Your task to perform on an android device: open the mobile data screen to see how much data has been used Image 0: 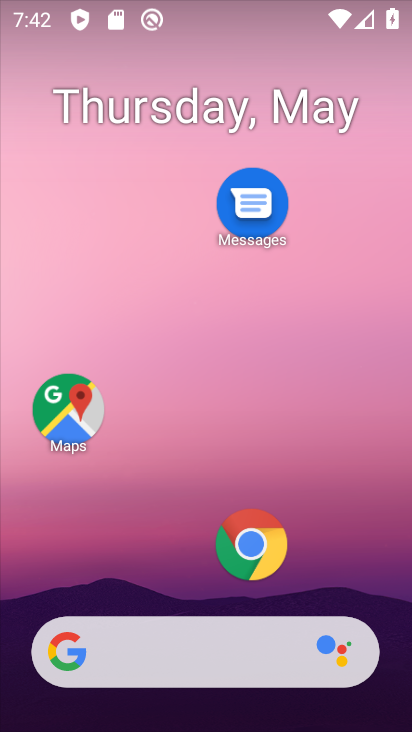
Step 0: drag from (82, 588) to (289, 56)
Your task to perform on an android device: open the mobile data screen to see how much data has been used Image 1: 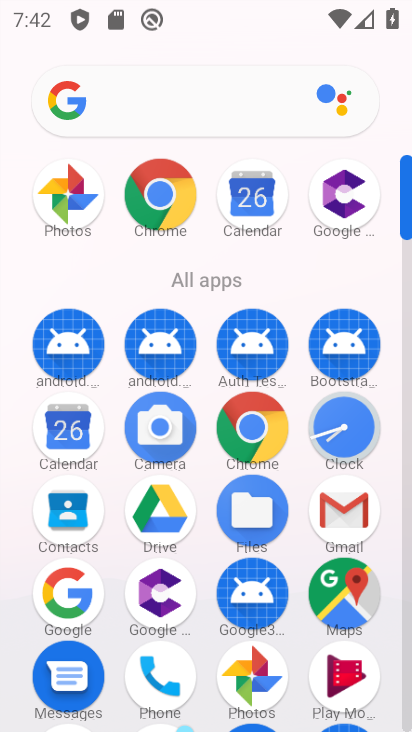
Step 1: drag from (119, 531) to (168, 169)
Your task to perform on an android device: open the mobile data screen to see how much data has been used Image 2: 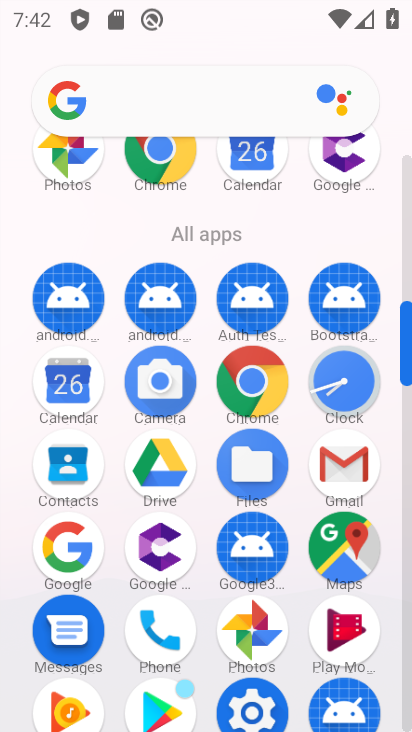
Step 2: click (258, 716)
Your task to perform on an android device: open the mobile data screen to see how much data has been used Image 3: 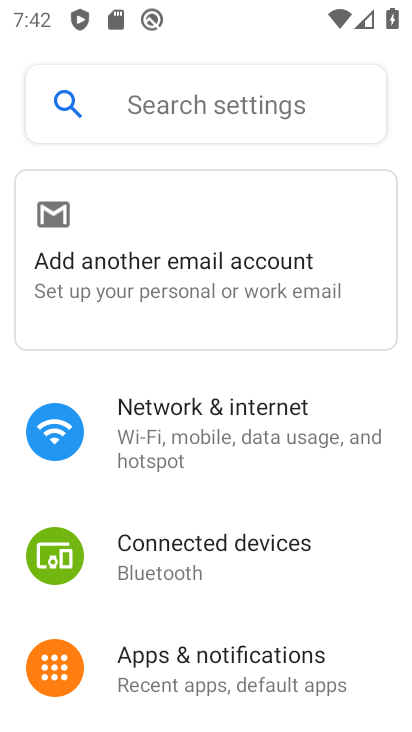
Step 3: drag from (229, 613) to (282, 247)
Your task to perform on an android device: open the mobile data screen to see how much data has been used Image 4: 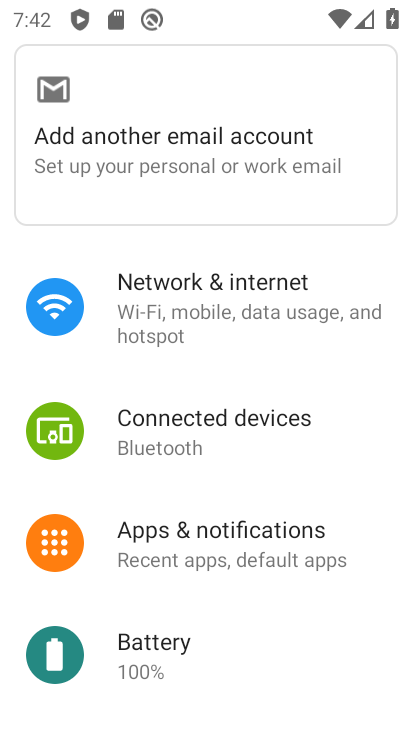
Step 4: click (205, 293)
Your task to perform on an android device: open the mobile data screen to see how much data has been used Image 5: 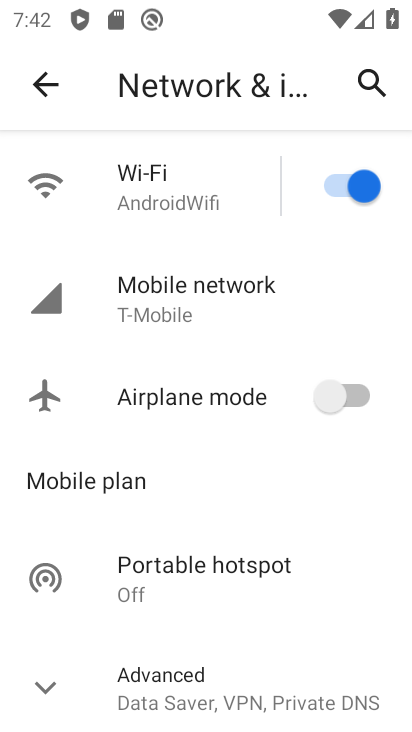
Step 5: click (147, 312)
Your task to perform on an android device: open the mobile data screen to see how much data has been used Image 6: 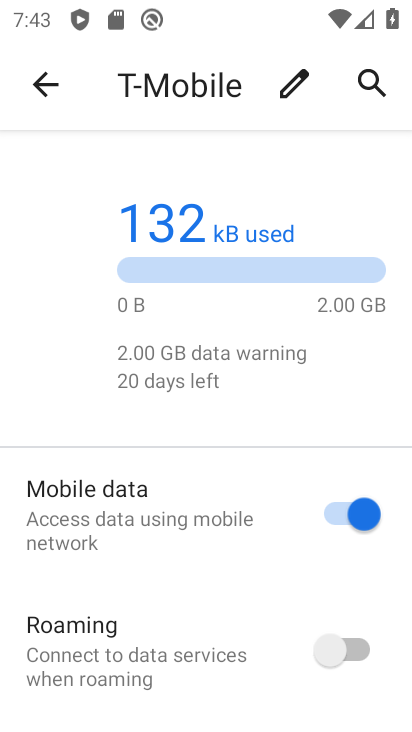
Step 6: task complete